Your task to perform on an android device: turn off notifications settings in the gmail app Image 0: 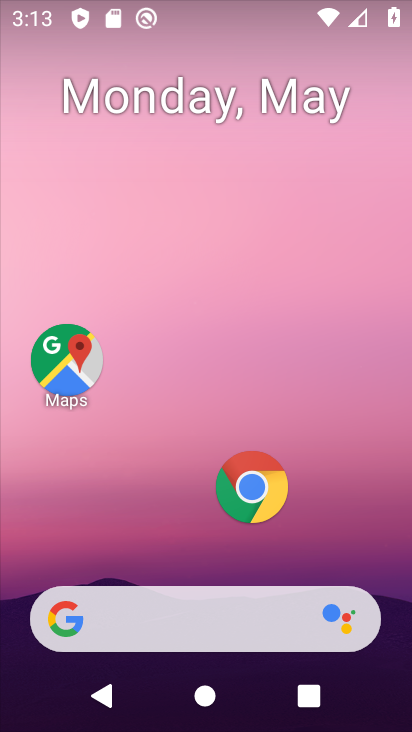
Step 0: drag from (182, 541) to (189, 0)
Your task to perform on an android device: turn off notifications settings in the gmail app Image 1: 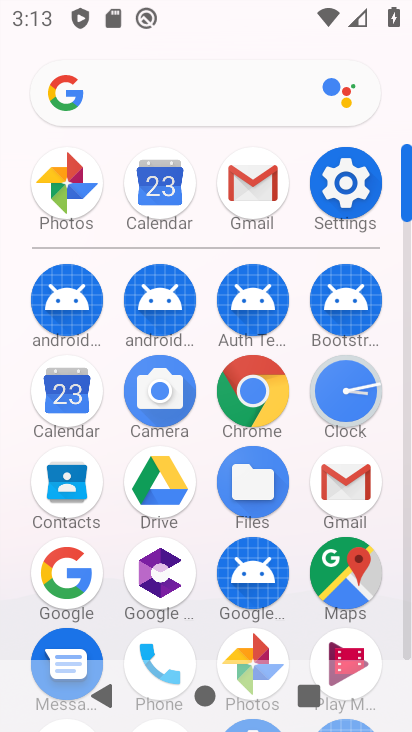
Step 1: click (340, 485)
Your task to perform on an android device: turn off notifications settings in the gmail app Image 2: 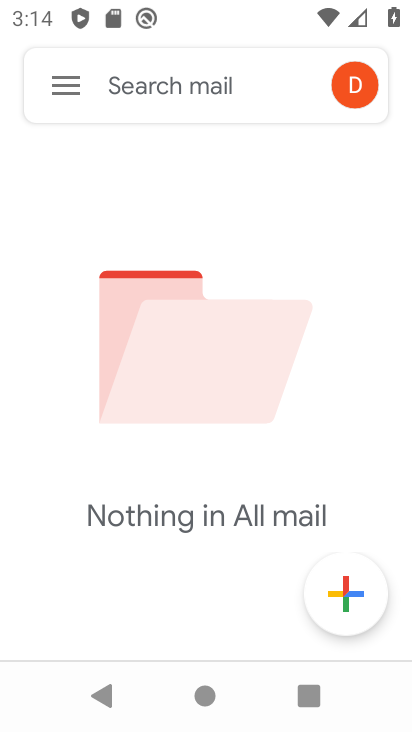
Step 2: click (68, 79)
Your task to perform on an android device: turn off notifications settings in the gmail app Image 3: 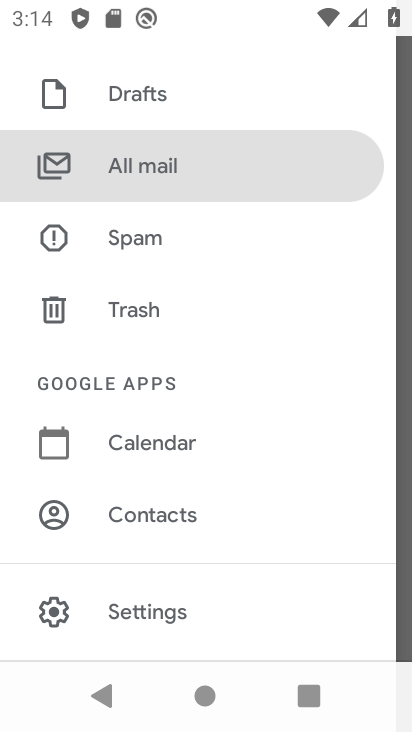
Step 3: click (136, 594)
Your task to perform on an android device: turn off notifications settings in the gmail app Image 4: 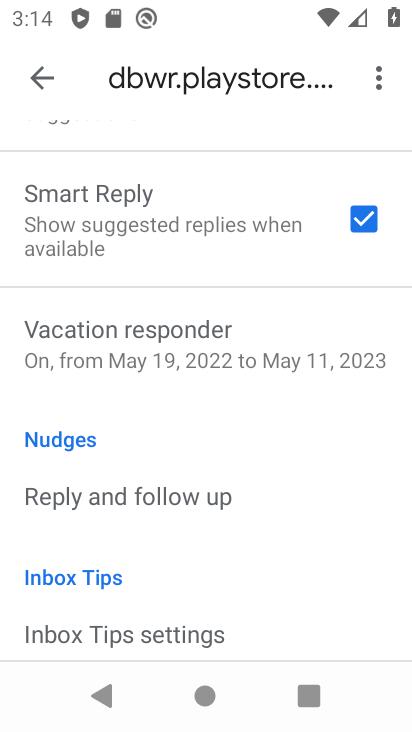
Step 4: drag from (100, 236) to (189, 679)
Your task to perform on an android device: turn off notifications settings in the gmail app Image 5: 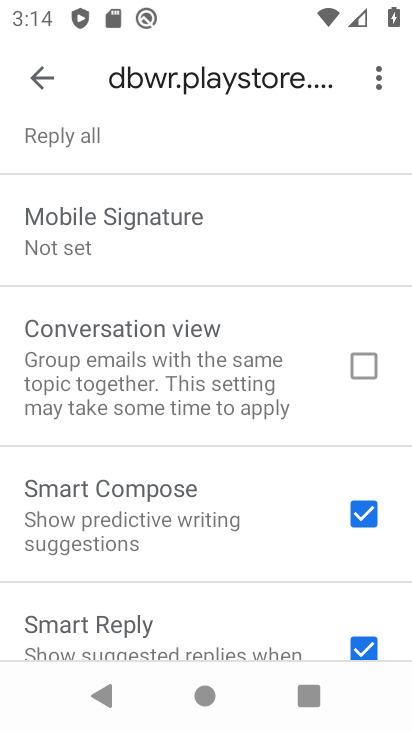
Step 5: drag from (148, 317) to (201, 693)
Your task to perform on an android device: turn off notifications settings in the gmail app Image 6: 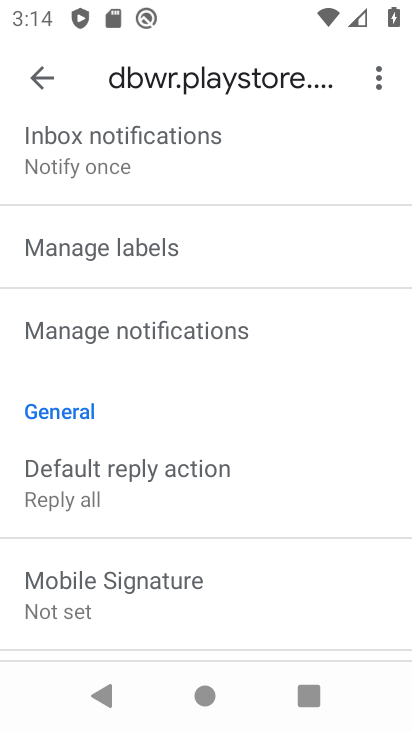
Step 6: click (129, 327)
Your task to perform on an android device: turn off notifications settings in the gmail app Image 7: 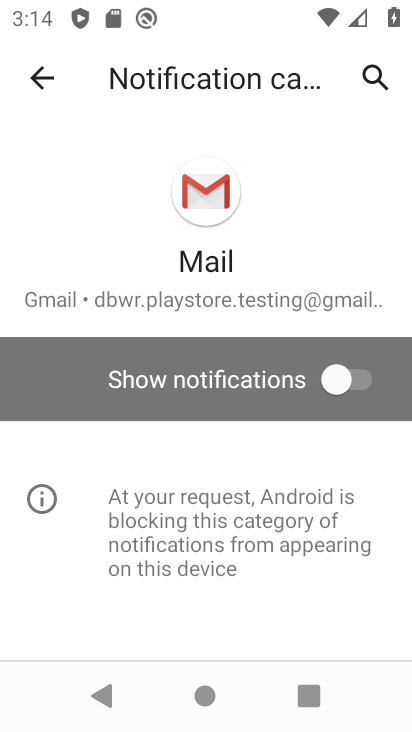
Step 7: task complete